Your task to perform on an android device: turn notification dots on Image 0: 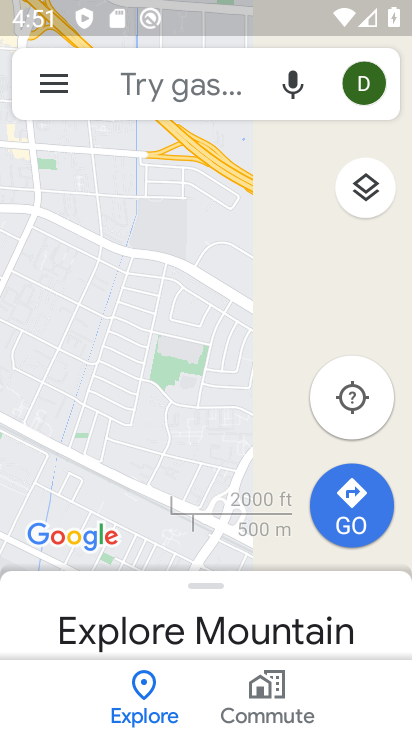
Step 0: press back button
Your task to perform on an android device: turn notification dots on Image 1: 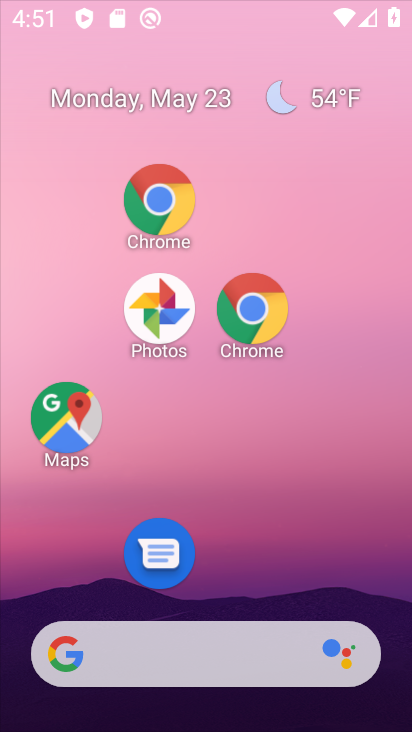
Step 1: press home button
Your task to perform on an android device: turn notification dots on Image 2: 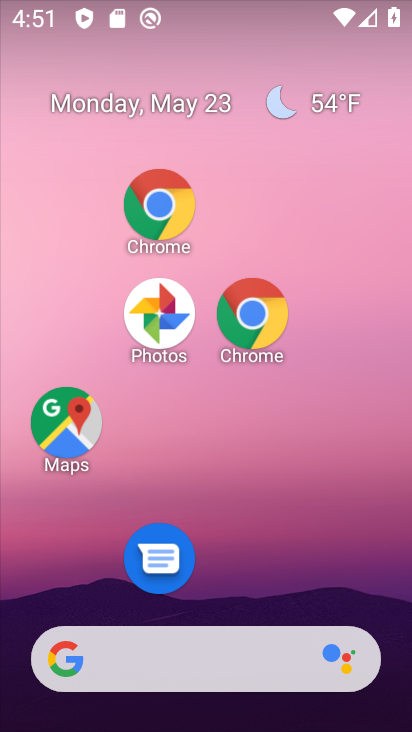
Step 2: drag from (209, 298) to (181, 194)
Your task to perform on an android device: turn notification dots on Image 3: 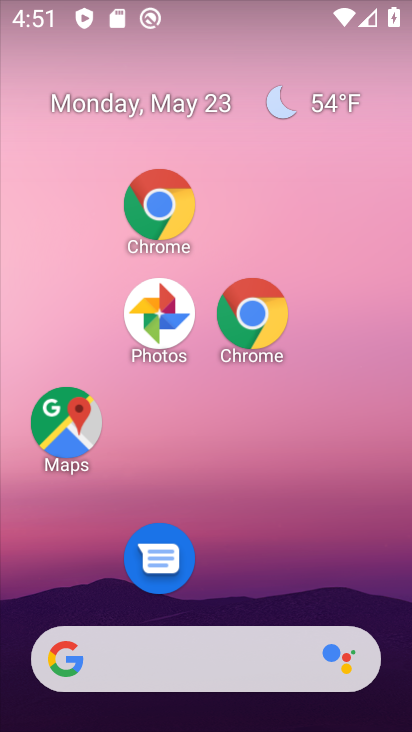
Step 3: drag from (184, 151) to (163, 3)
Your task to perform on an android device: turn notification dots on Image 4: 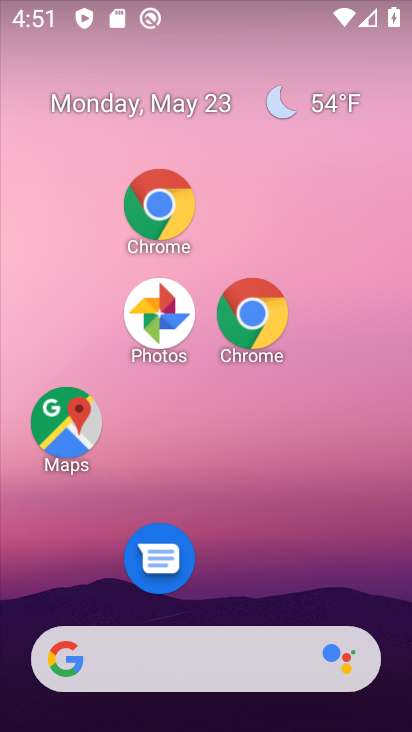
Step 4: drag from (270, 509) to (153, 136)
Your task to perform on an android device: turn notification dots on Image 5: 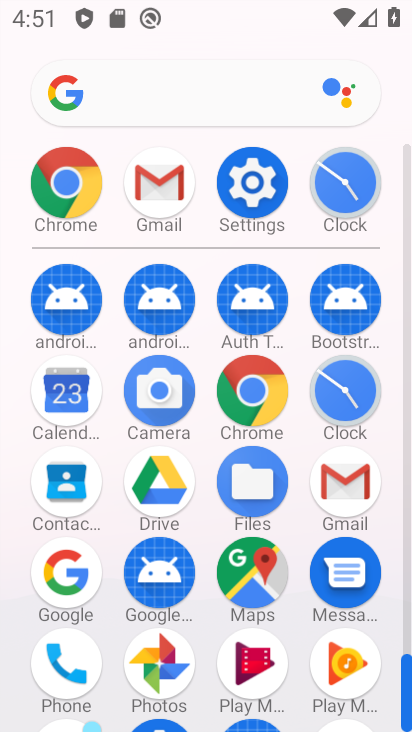
Step 5: click (254, 180)
Your task to perform on an android device: turn notification dots on Image 6: 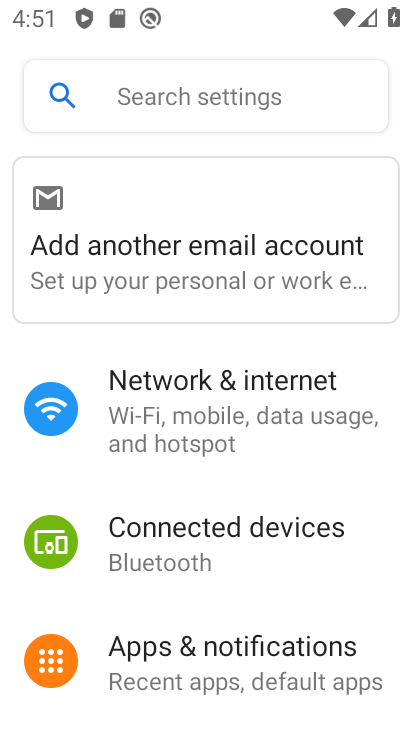
Step 6: click (223, 677)
Your task to perform on an android device: turn notification dots on Image 7: 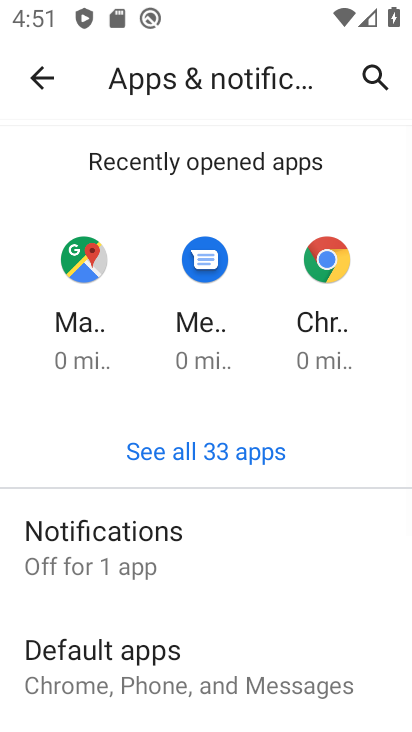
Step 7: click (84, 545)
Your task to perform on an android device: turn notification dots on Image 8: 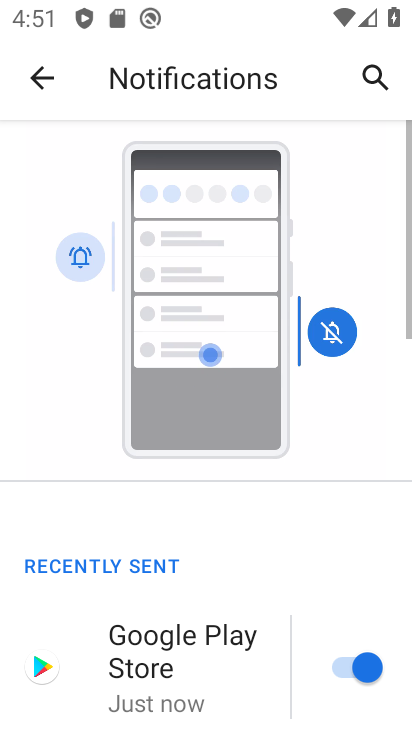
Step 8: drag from (222, 608) to (171, 145)
Your task to perform on an android device: turn notification dots on Image 9: 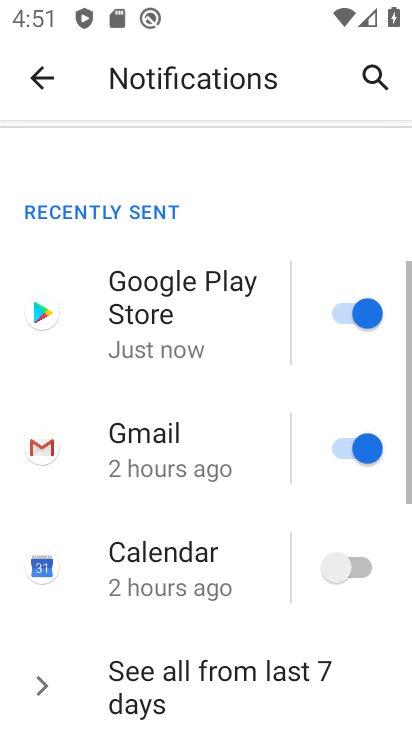
Step 9: drag from (247, 539) to (162, 269)
Your task to perform on an android device: turn notification dots on Image 10: 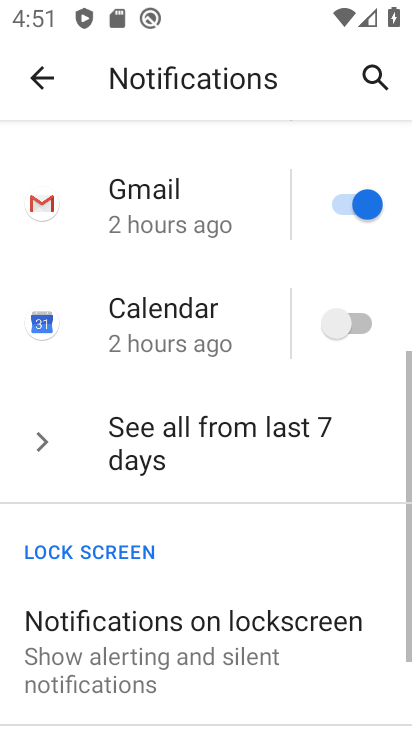
Step 10: drag from (183, 496) to (188, 221)
Your task to perform on an android device: turn notification dots on Image 11: 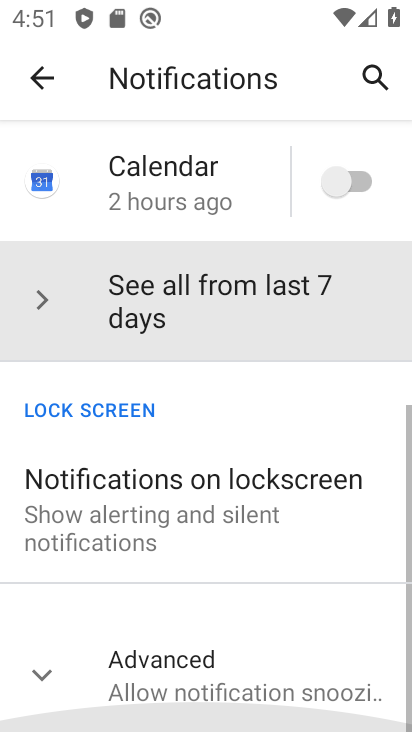
Step 11: drag from (187, 444) to (187, 172)
Your task to perform on an android device: turn notification dots on Image 12: 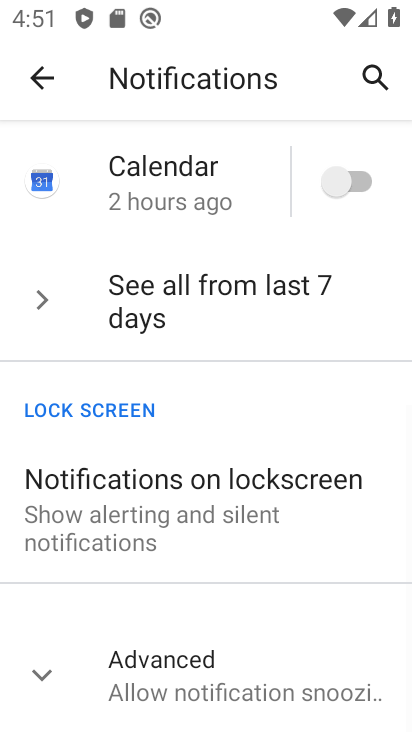
Step 12: click (273, 268)
Your task to perform on an android device: turn notification dots on Image 13: 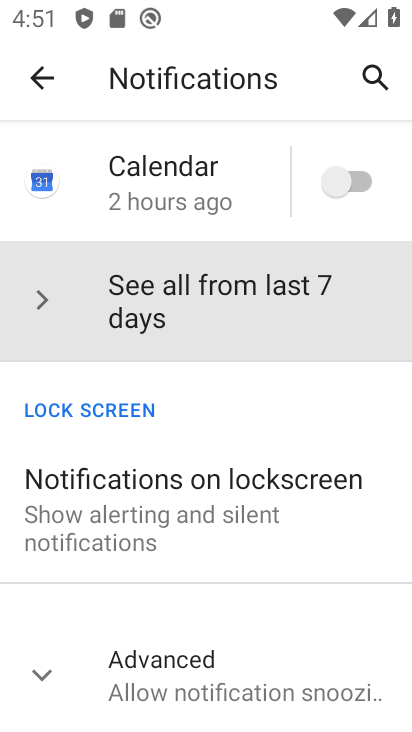
Step 13: click (181, 673)
Your task to perform on an android device: turn notification dots on Image 14: 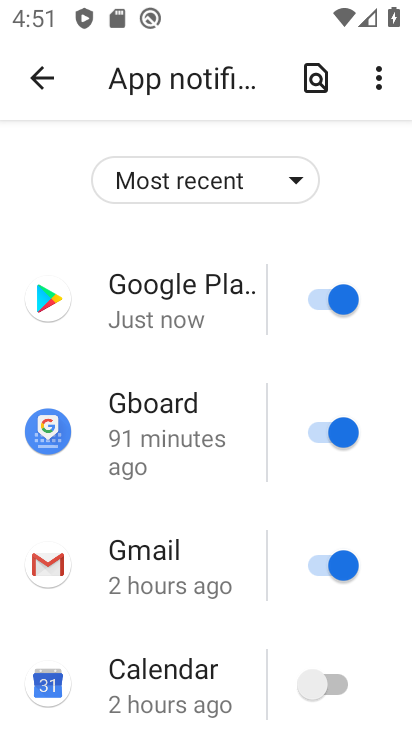
Step 14: click (38, 80)
Your task to perform on an android device: turn notification dots on Image 15: 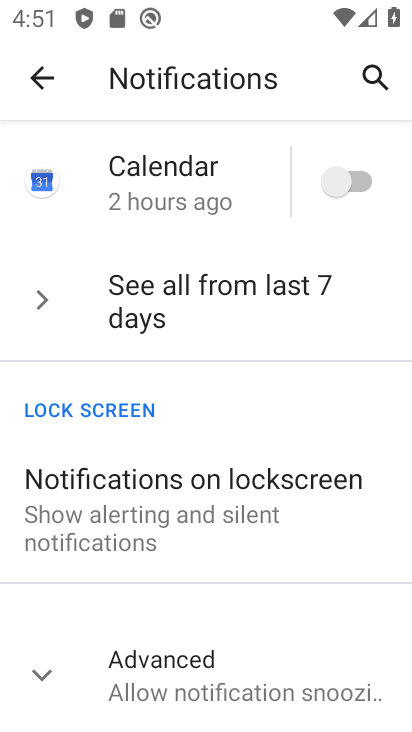
Step 15: click (181, 679)
Your task to perform on an android device: turn notification dots on Image 16: 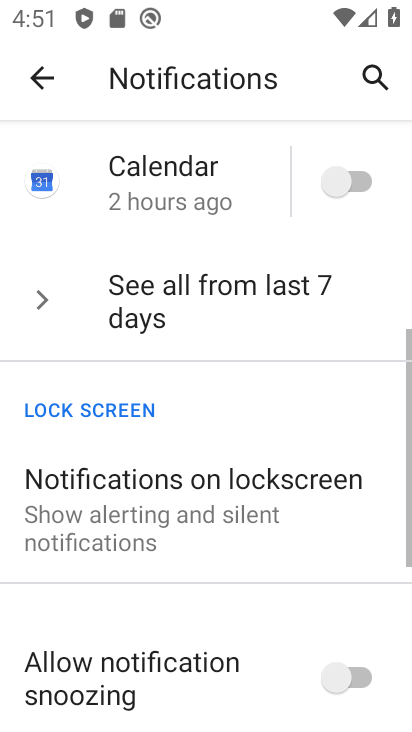
Step 16: task complete